Your task to perform on an android device: turn off airplane mode Image 0: 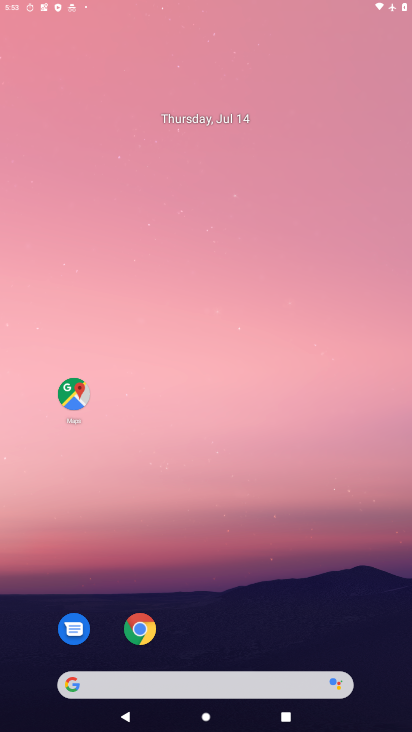
Step 0: drag from (214, 701) to (195, 2)
Your task to perform on an android device: turn off airplane mode Image 1: 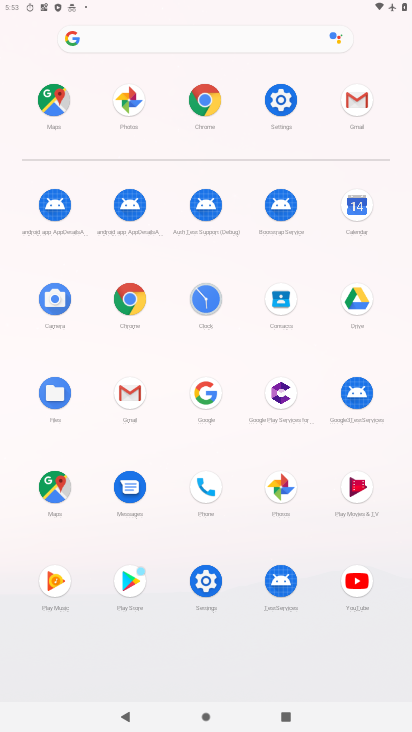
Step 1: click (296, 104)
Your task to perform on an android device: turn off airplane mode Image 2: 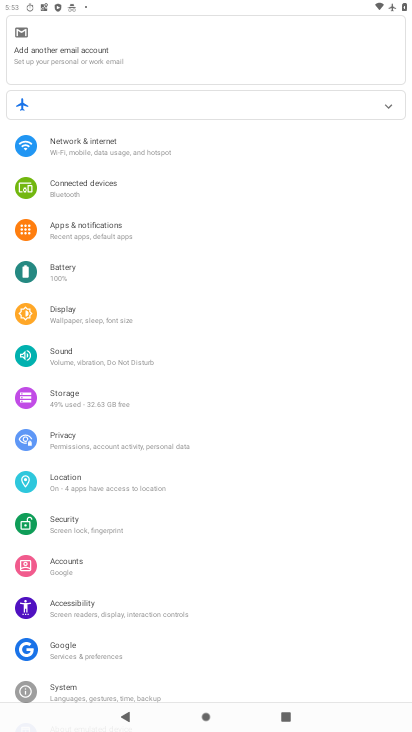
Step 2: click (128, 140)
Your task to perform on an android device: turn off airplane mode Image 3: 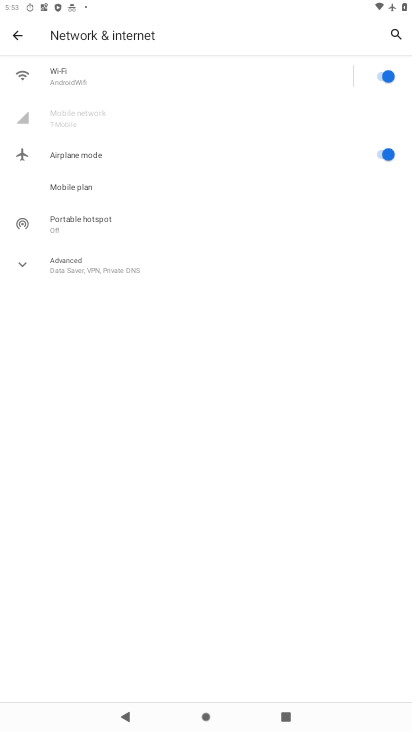
Step 3: click (388, 153)
Your task to perform on an android device: turn off airplane mode Image 4: 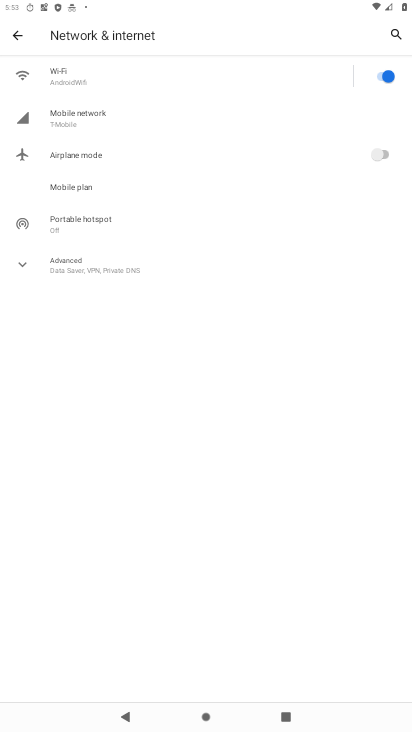
Step 4: task complete